Your task to perform on an android device: Go to eBay Image 0: 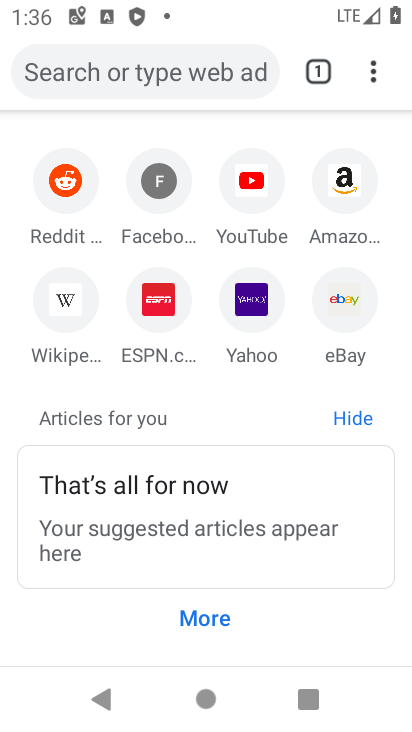
Step 0: press home button
Your task to perform on an android device: Go to eBay Image 1: 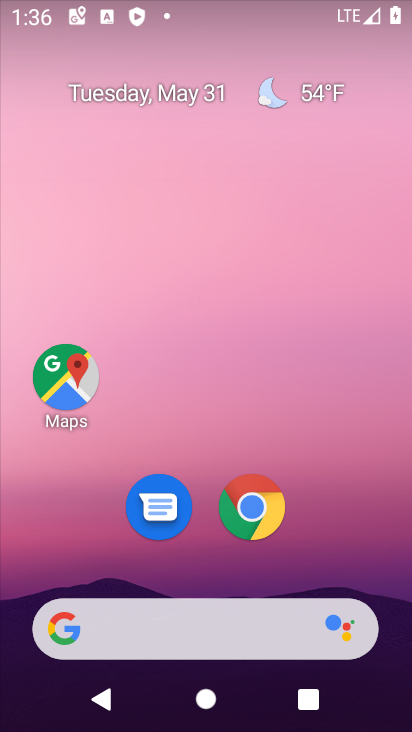
Step 1: drag from (369, 542) to (230, 4)
Your task to perform on an android device: Go to eBay Image 2: 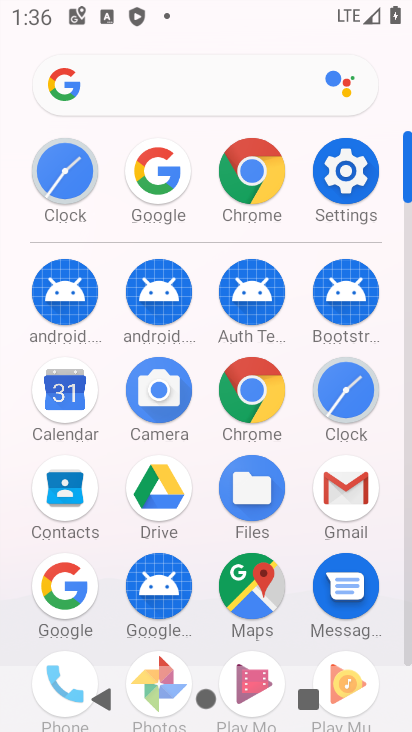
Step 2: click (73, 575)
Your task to perform on an android device: Go to eBay Image 3: 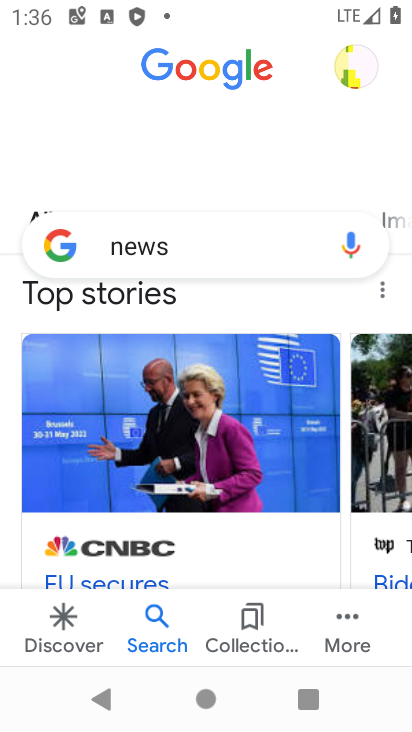
Step 3: press back button
Your task to perform on an android device: Go to eBay Image 4: 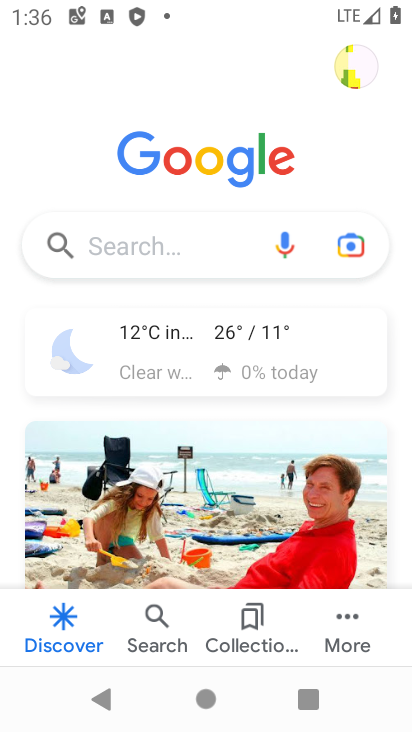
Step 4: click (110, 253)
Your task to perform on an android device: Go to eBay Image 5: 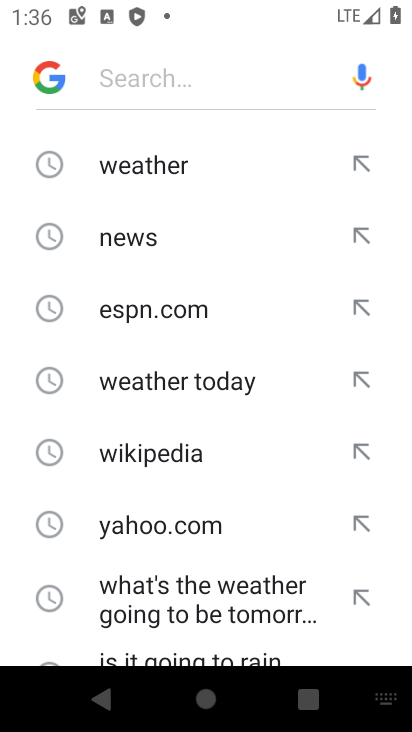
Step 5: drag from (150, 520) to (167, 67)
Your task to perform on an android device: Go to eBay Image 6: 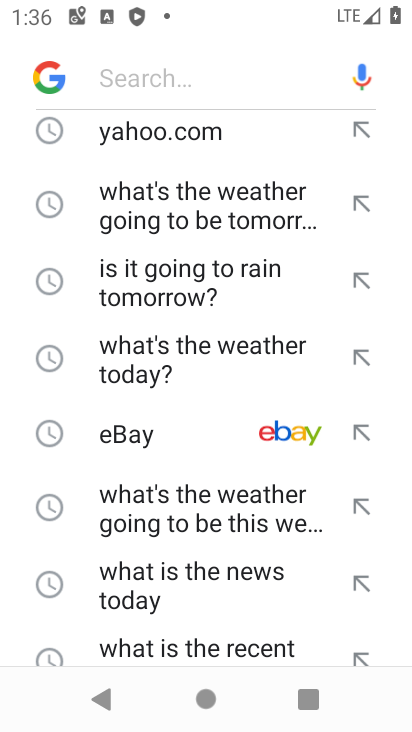
Step 6: click (181, 421)
Your task to perform on an android device: Go to eBay Image 7: 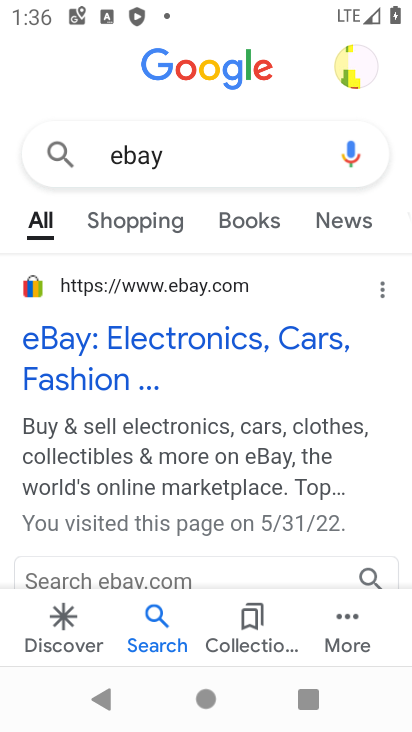
Step 7: task complete